Your task to perform on an android device: Open Youtube and go to the subscriptions tab Image 0: 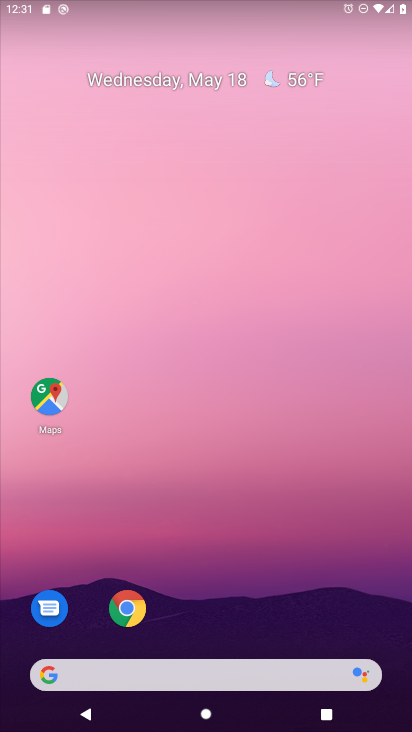
Step 0: drag from (292, 569) to (267, 215)
Your task to perform on an android device: Open Youtube and go to the subscriptions tab Image 1: 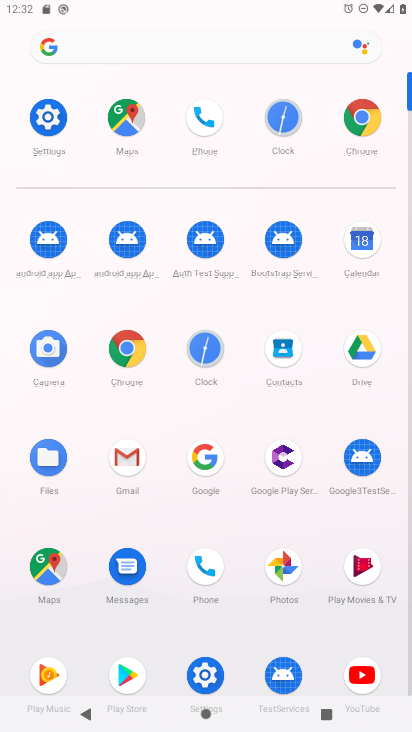
Step 1: click (351, 676)
Your task to perform on an android device: Open Youtube and go to the subscriptions tab Image 2: 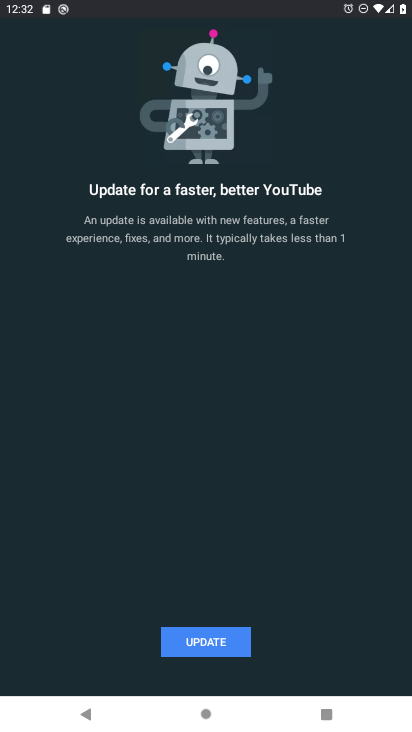
Step 2: click (186, 639)
Your task to perform on an android device: Open Youtube and go to the subscriptions tab Image 3: 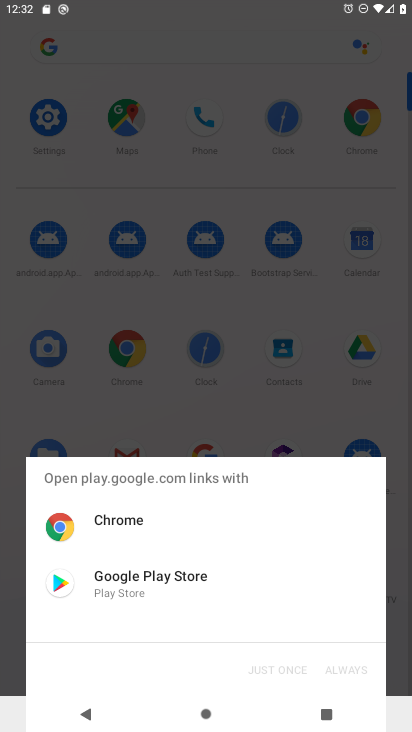
Step 3: click (165, 580)
Your task to perform on an android device: Open Youtube and go to the subscriptions tab Image 4: 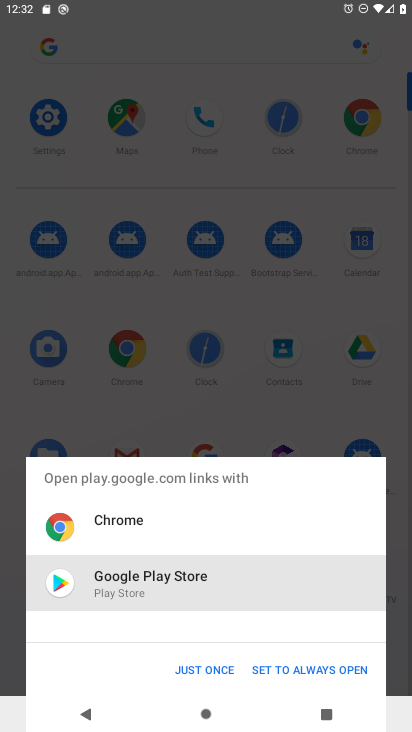
Step 4: click (212, 670)
Your task to perform on an android device: Open Youtube and go to the subscriptions tab Image 5: 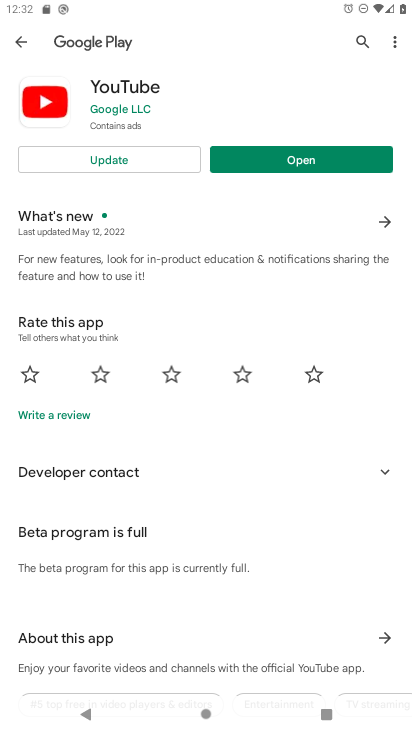
Step 5: click (115, 153)
Your task to perform on an android device: Open Youtube and go to the subscriptions tab Image 6: 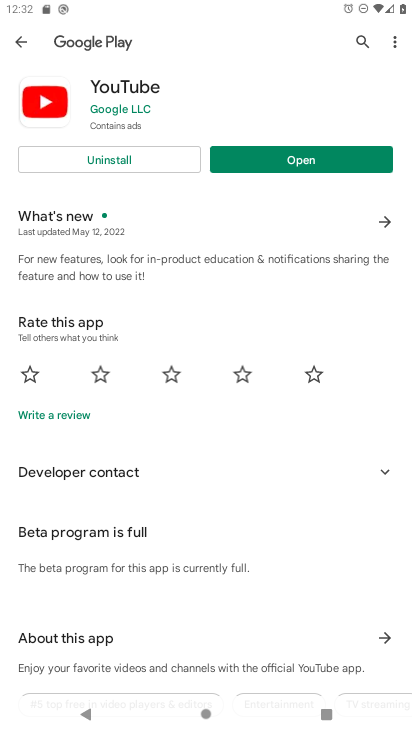
Step 6: click (288, 158)
Your task to perform on an android device: Open Youtube and go to the subscriptions tab Image 7: 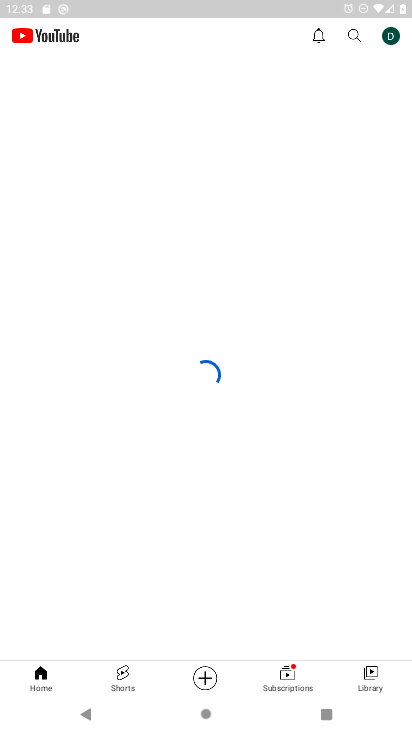
Step 7: click (261, 689)
Your task to perform on an android device: Open Youtube and go to the subscriptions tab Image 8: 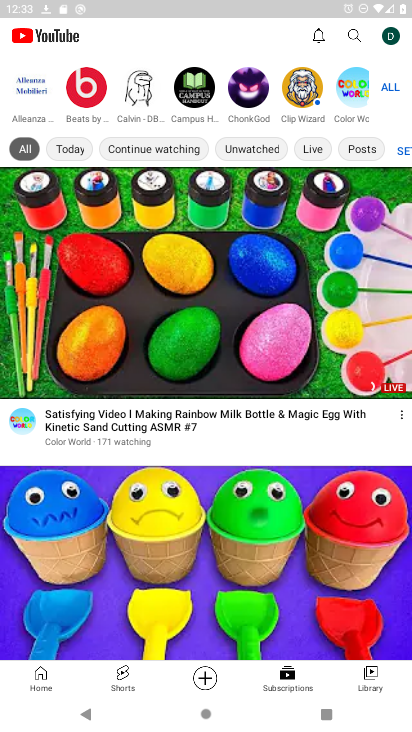
Step 8: click (283, 687)
Your task to perform on an android device: Open Youtube and go to the subscriptions tab Image 9: 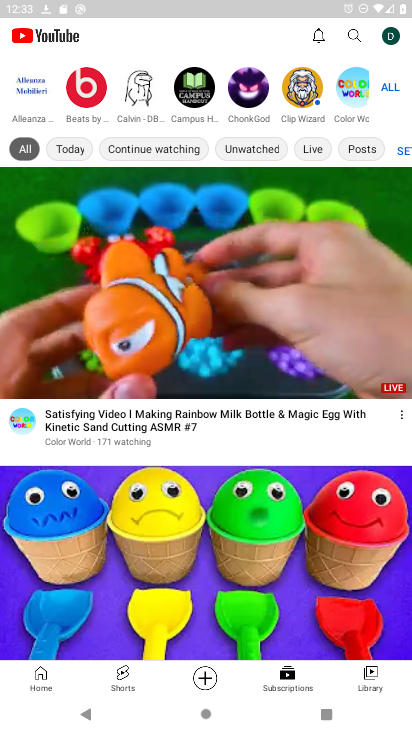
Step 9: task complete